Your task to perform on an android device: turn smart compose on in the gmail app Image 0: 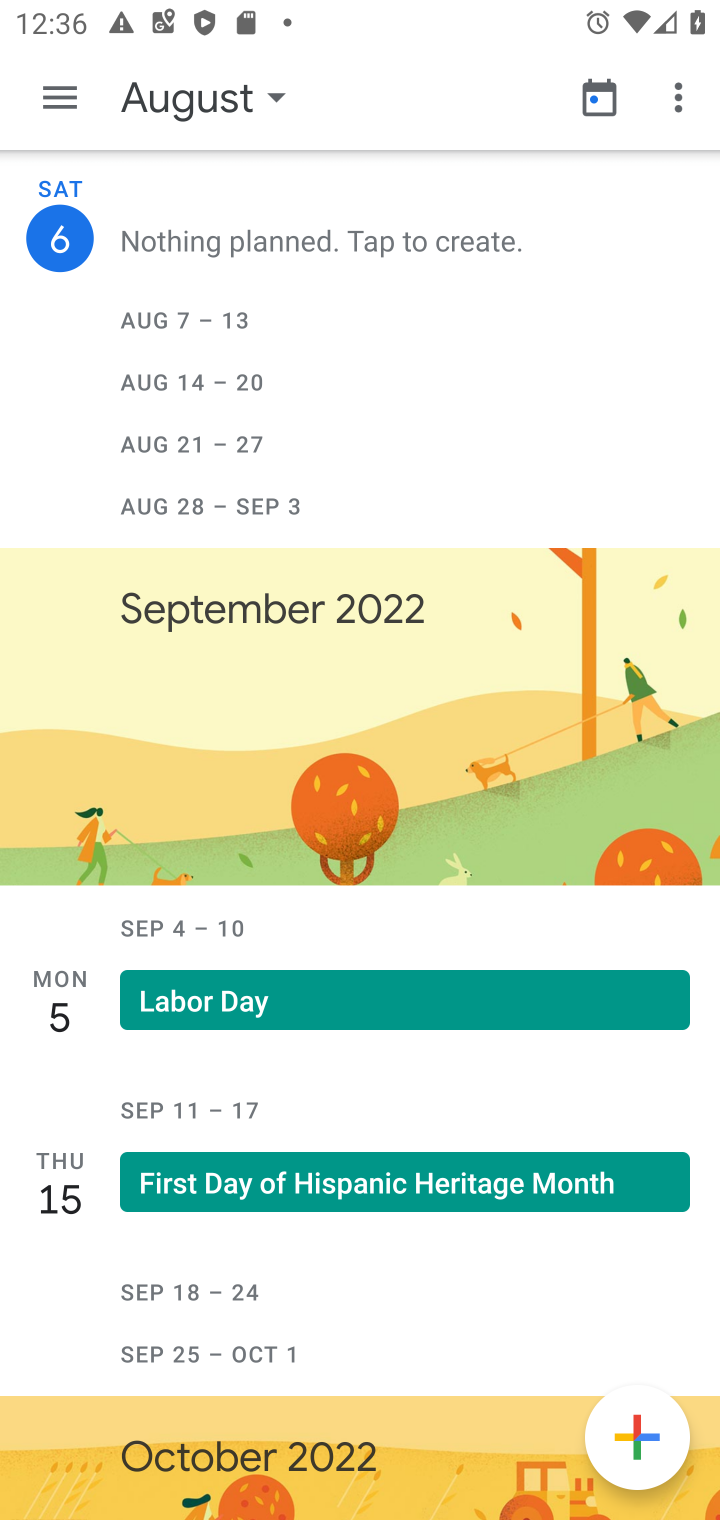
Step 0: press home button
Your task to perform on an android device: turn smart compose on in the gmail app Image 1: 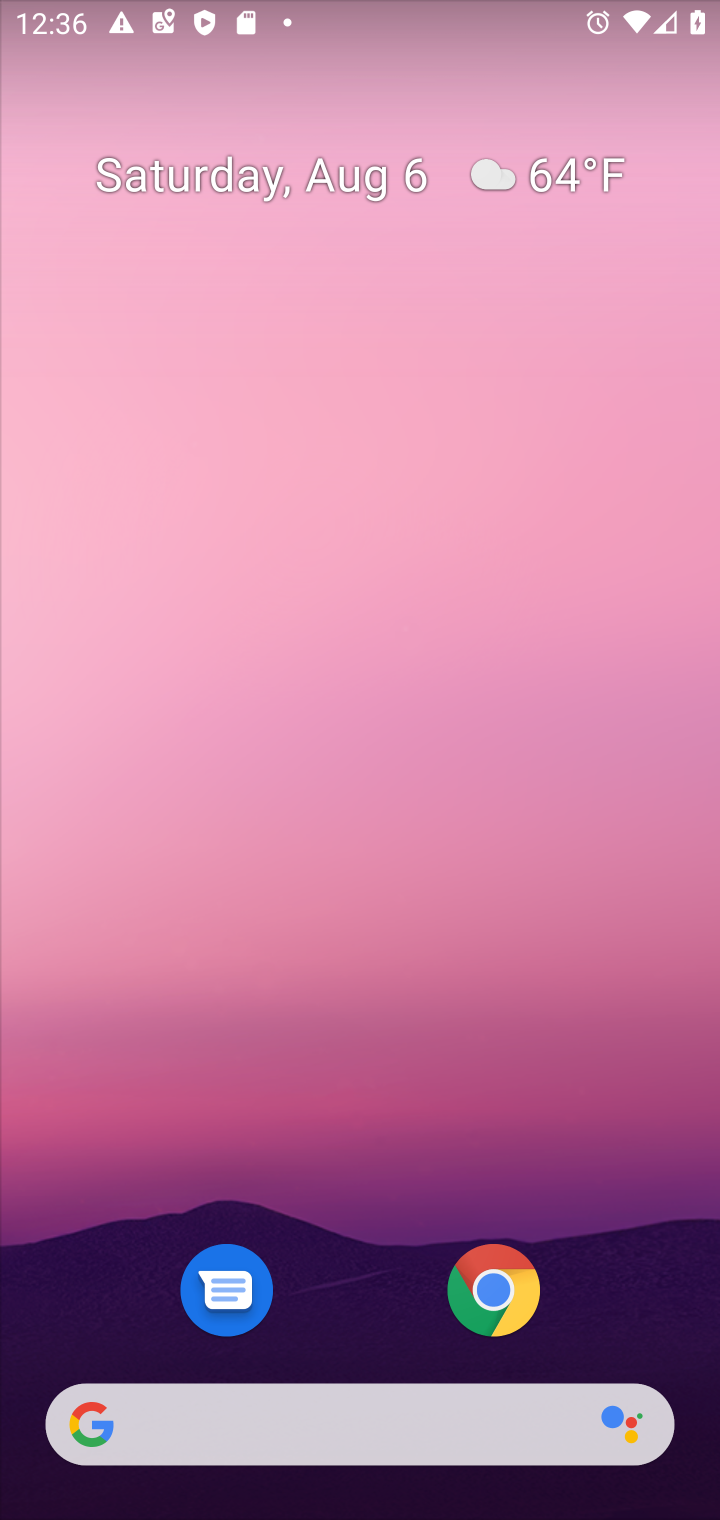
Step 1: drag from (373, 1205) to (365, 203)
Your task to perform on an android device: turn smart compose on in the gmail app Image 2: 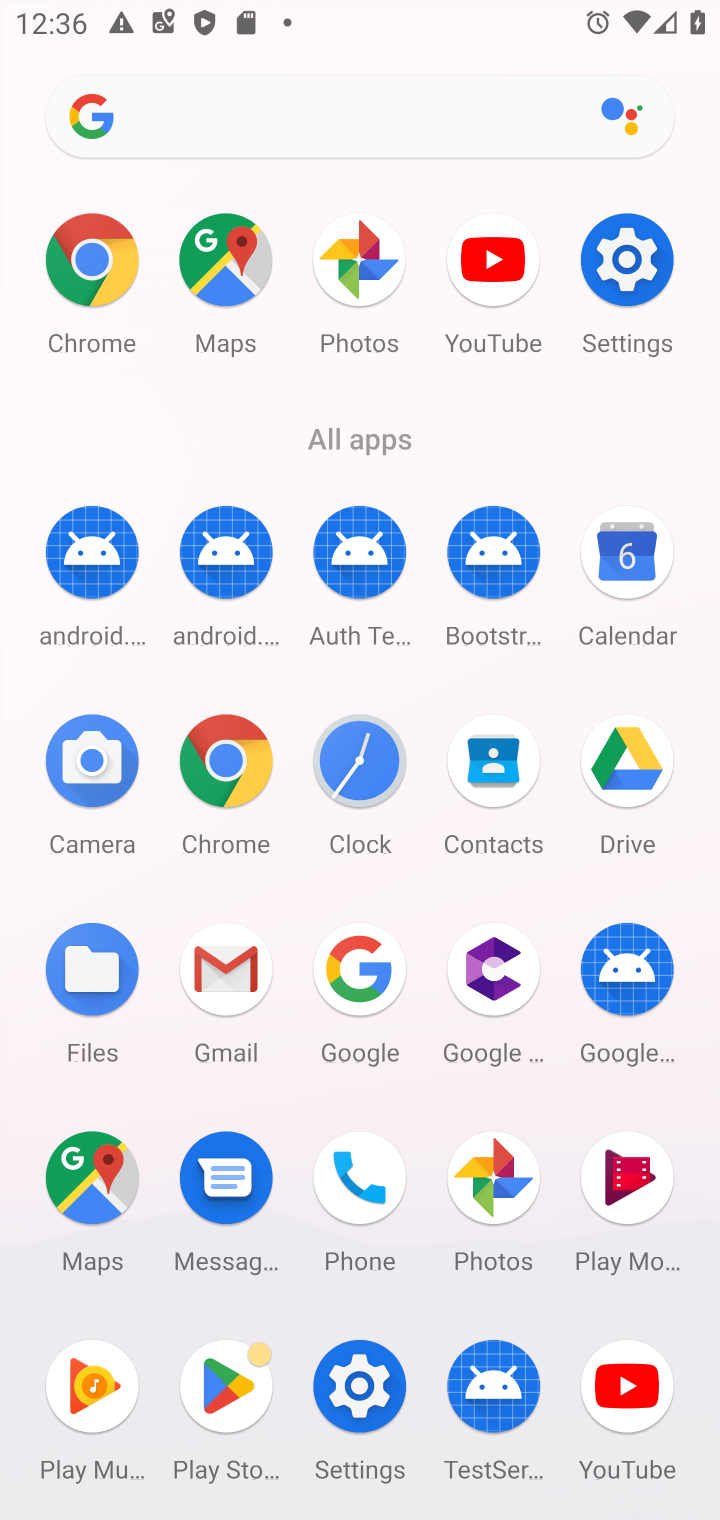
Step 2: click (221, 947)
Your task to perform on an android device: turn smart compose on in the gmail app Image 3: 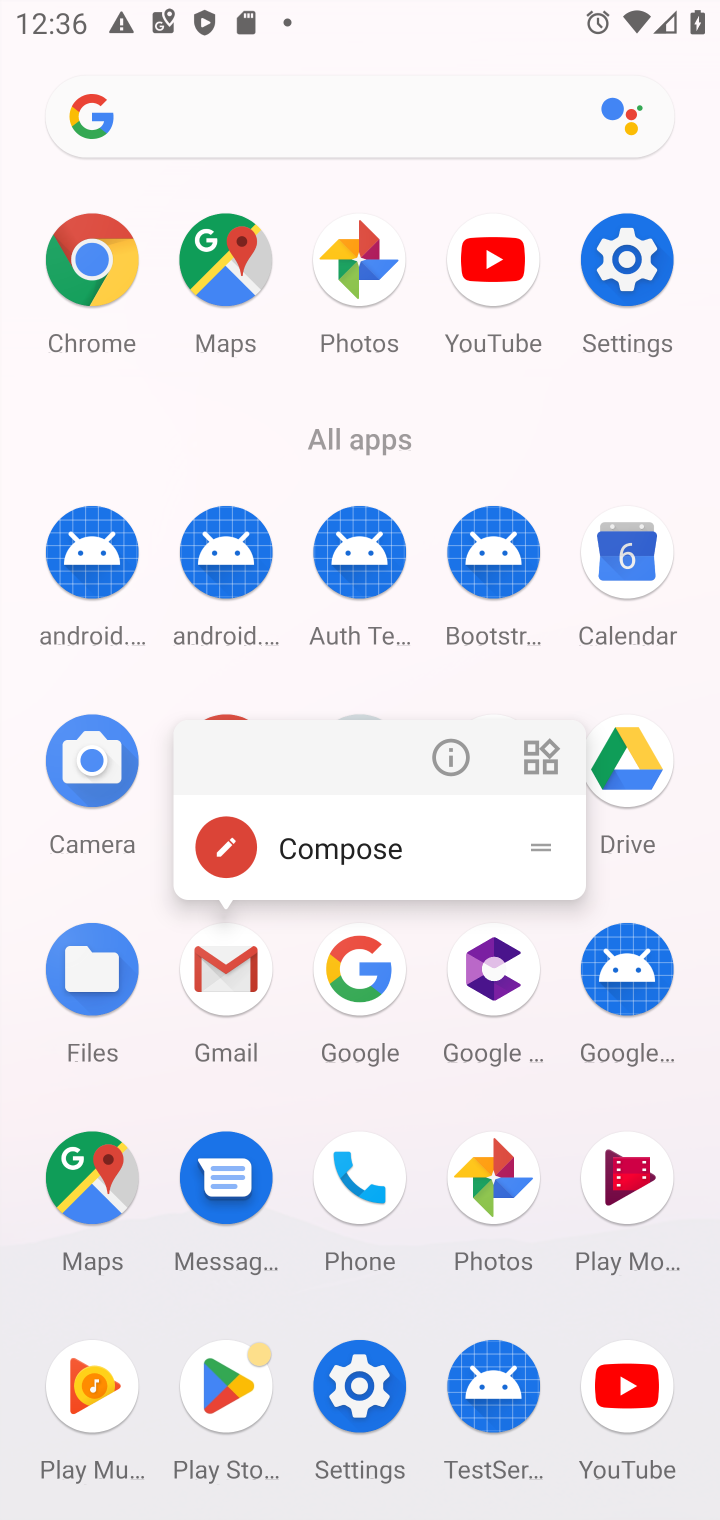
Step 3: click (213, 961)
Your task to perform on an android device: turn smart compose on in the gmail app Image 4: 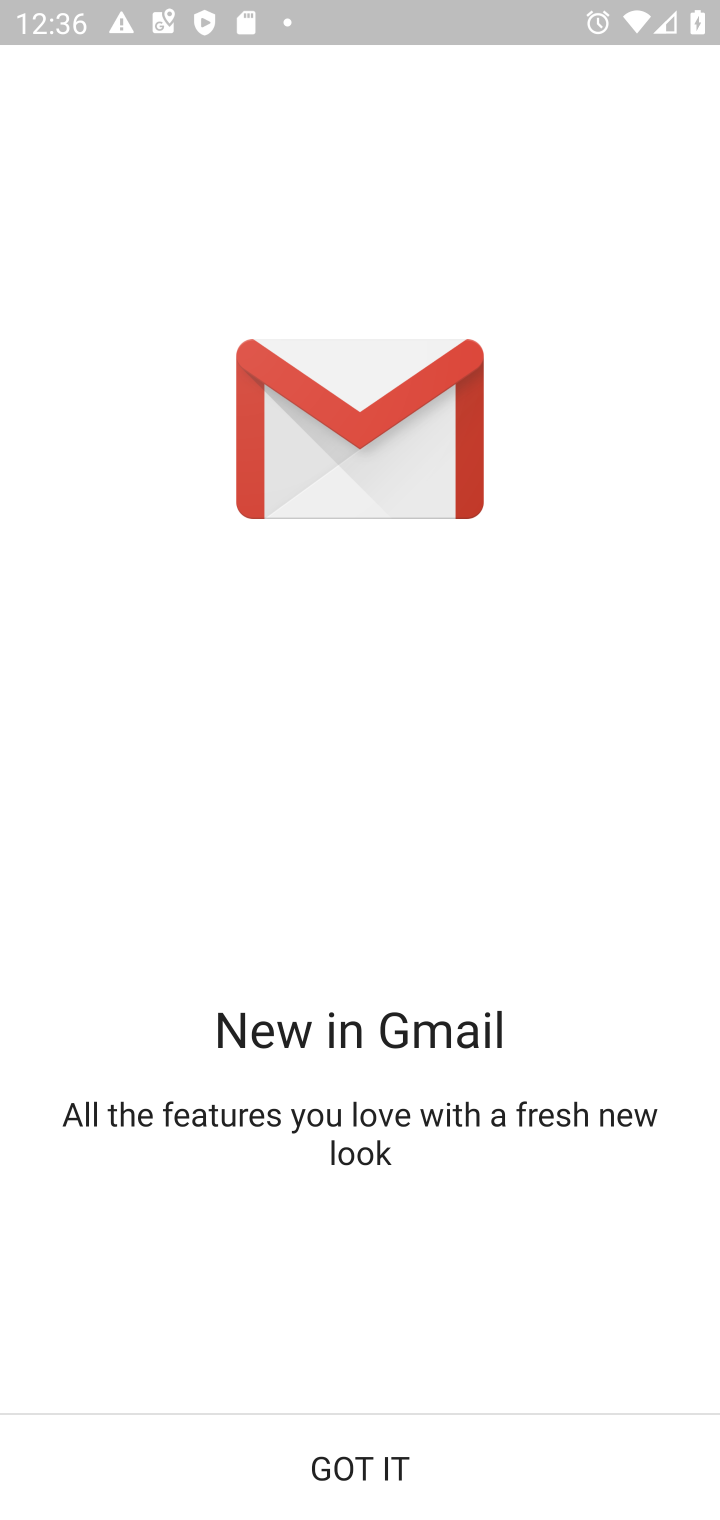
Step 4: click (343, 1456)
Your task to perform on an android device: turn smart compose on in the gmail app Image 5: 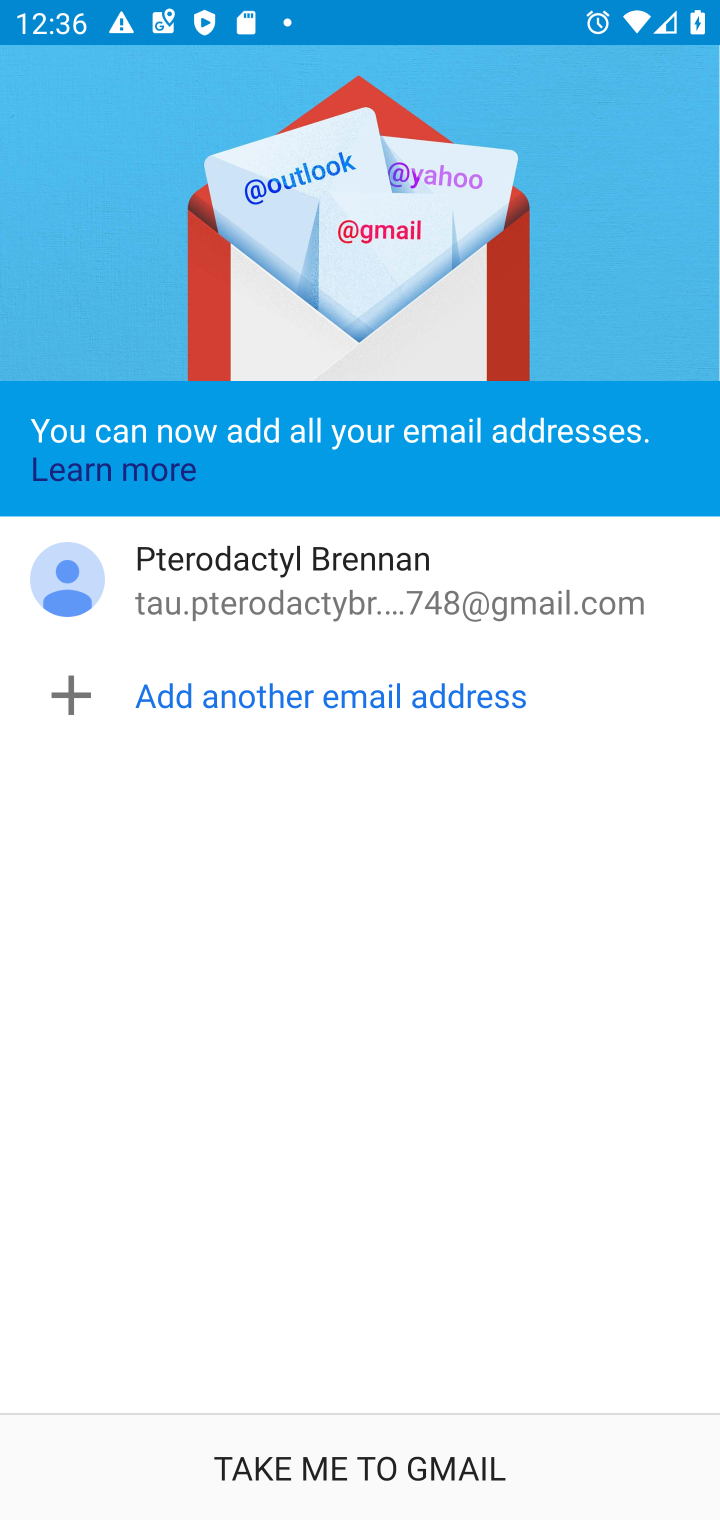
Step 5: click (347, 1483)
Your task to perform on an android device: turn smart compose on in the gmail app Image 6: 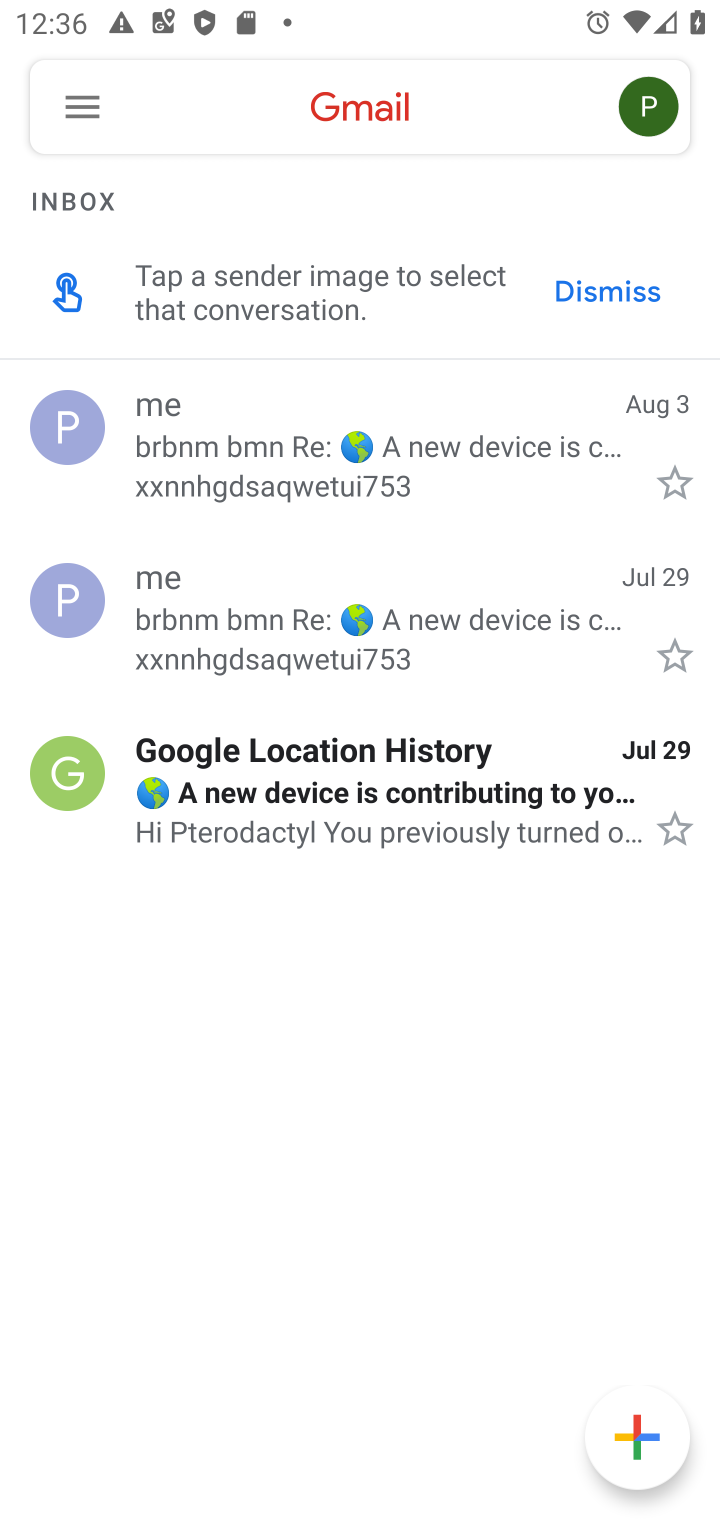
Step 6: click (89, 81)
Your task to perform on an android device: turn smart compose on in the gmail app Image 7: 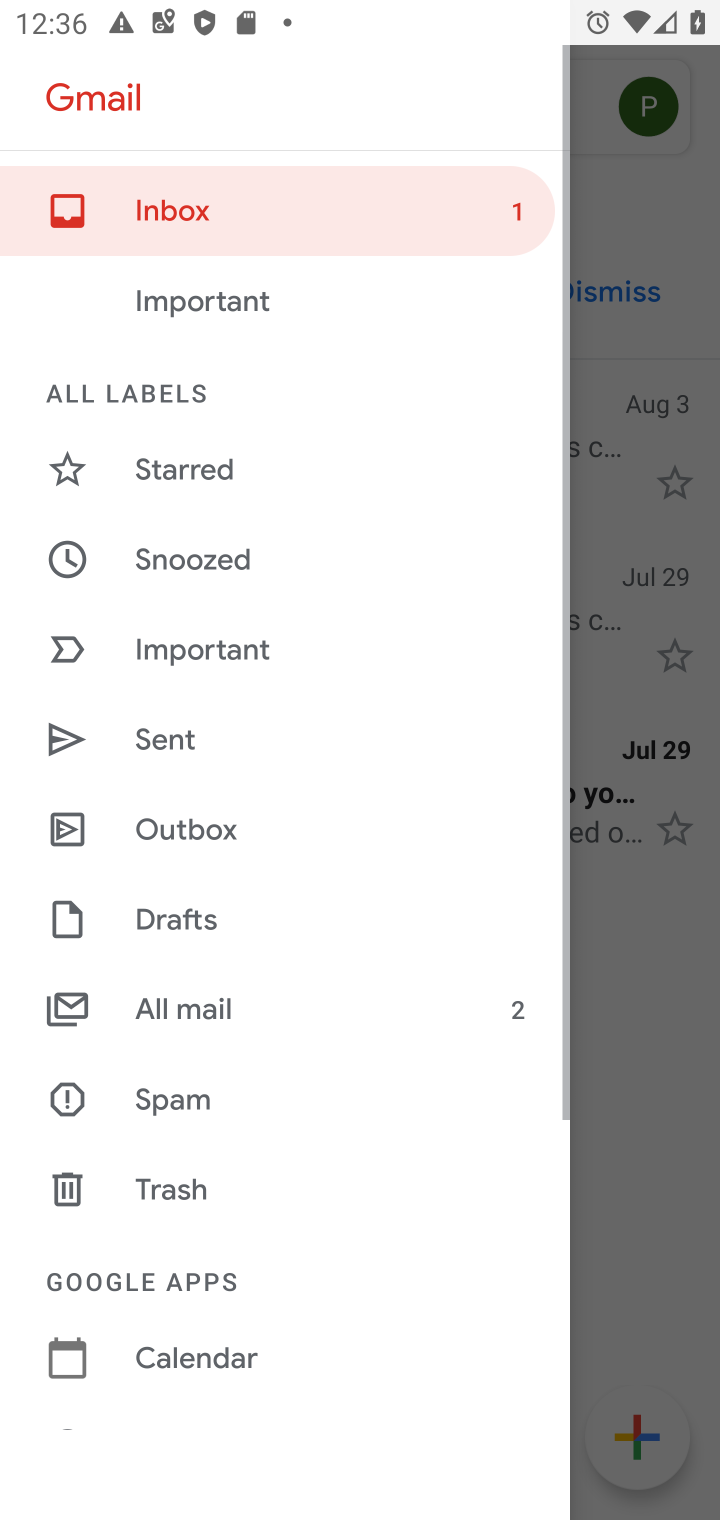
Step 7: drag from (207, 1324) to (224, 383)
Your task to perform on an android device: turn smart compose on in the gmail app Image 8: 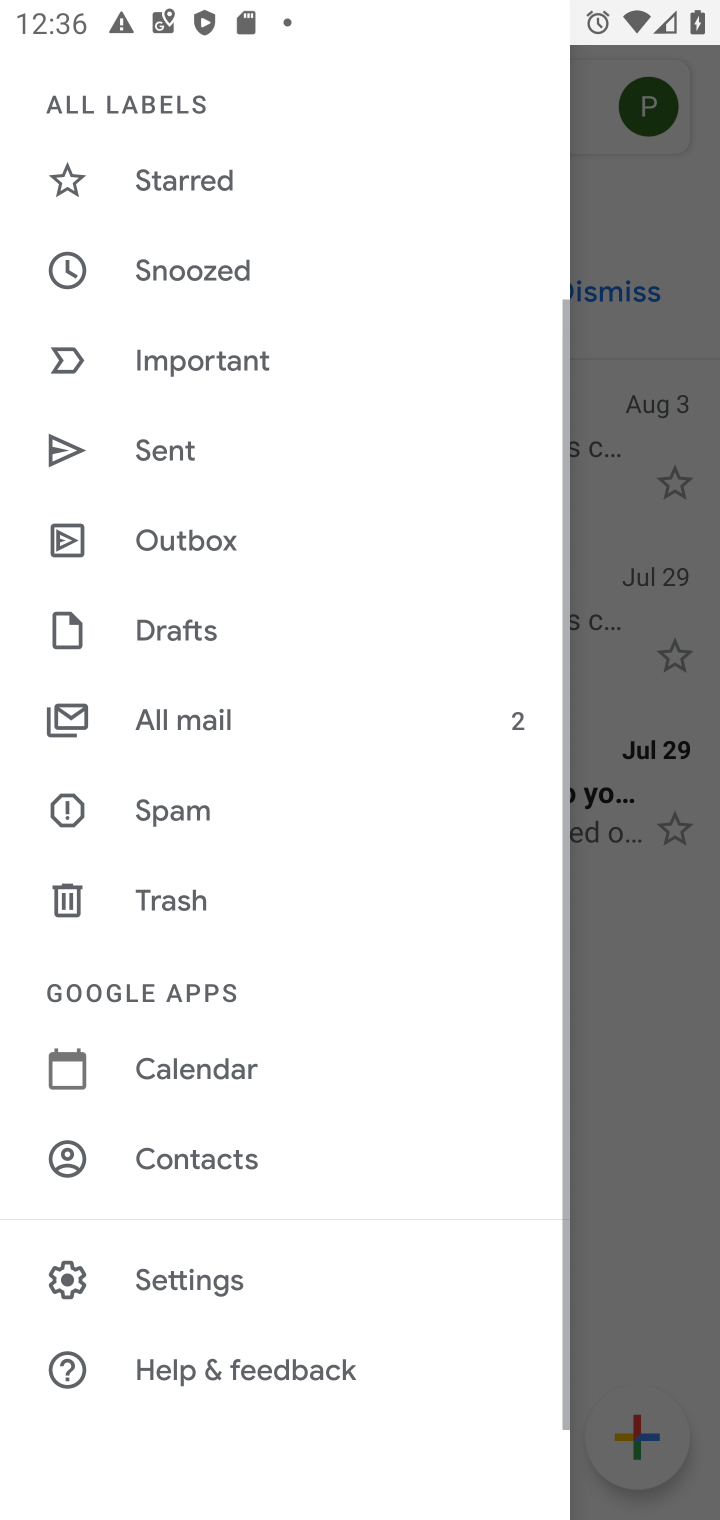
Step 8: click (276, 1277)
Your task to perform on an android device: turn smart compose on in the gmail app Image 9: 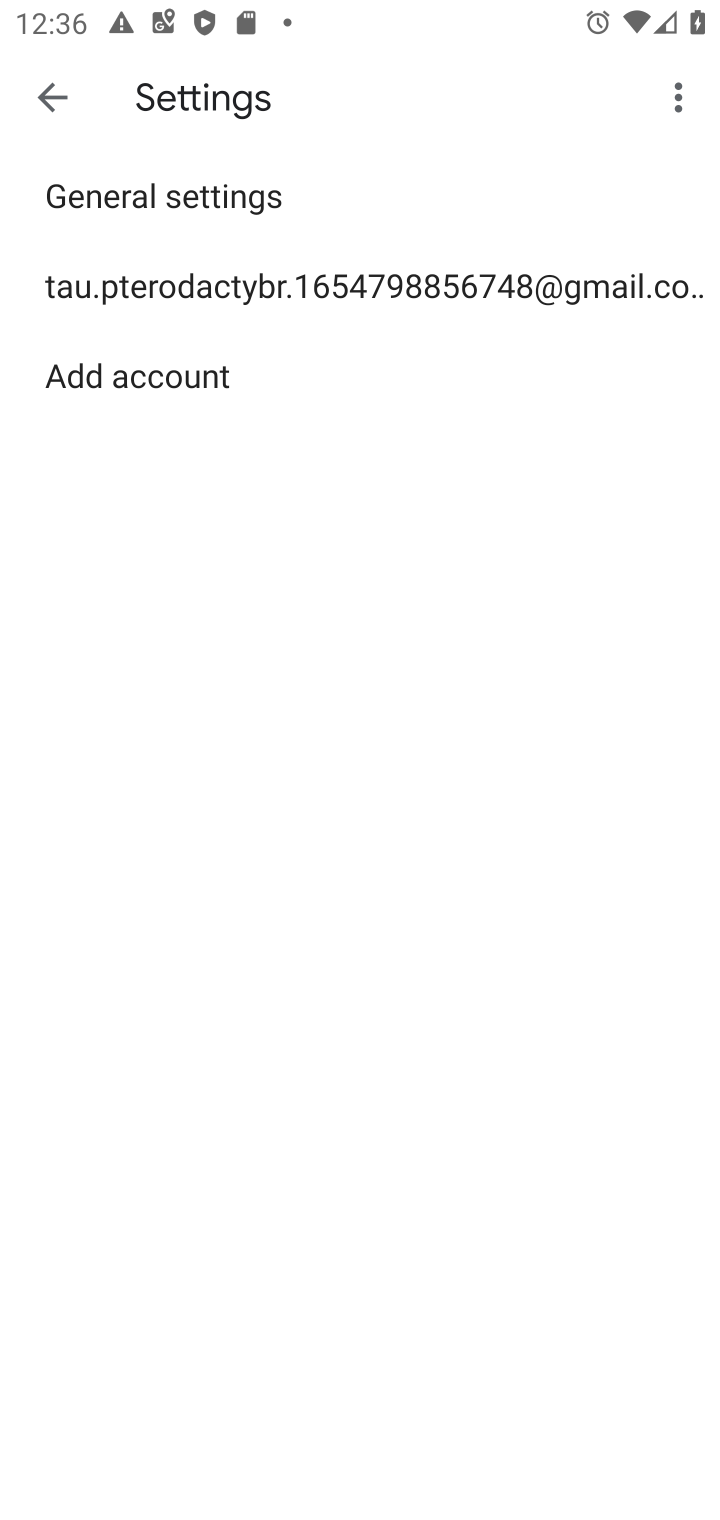
Step 9: click (293, 294)
Your task to perform on an android device: turn smart compose on in the gmail app Image 10: 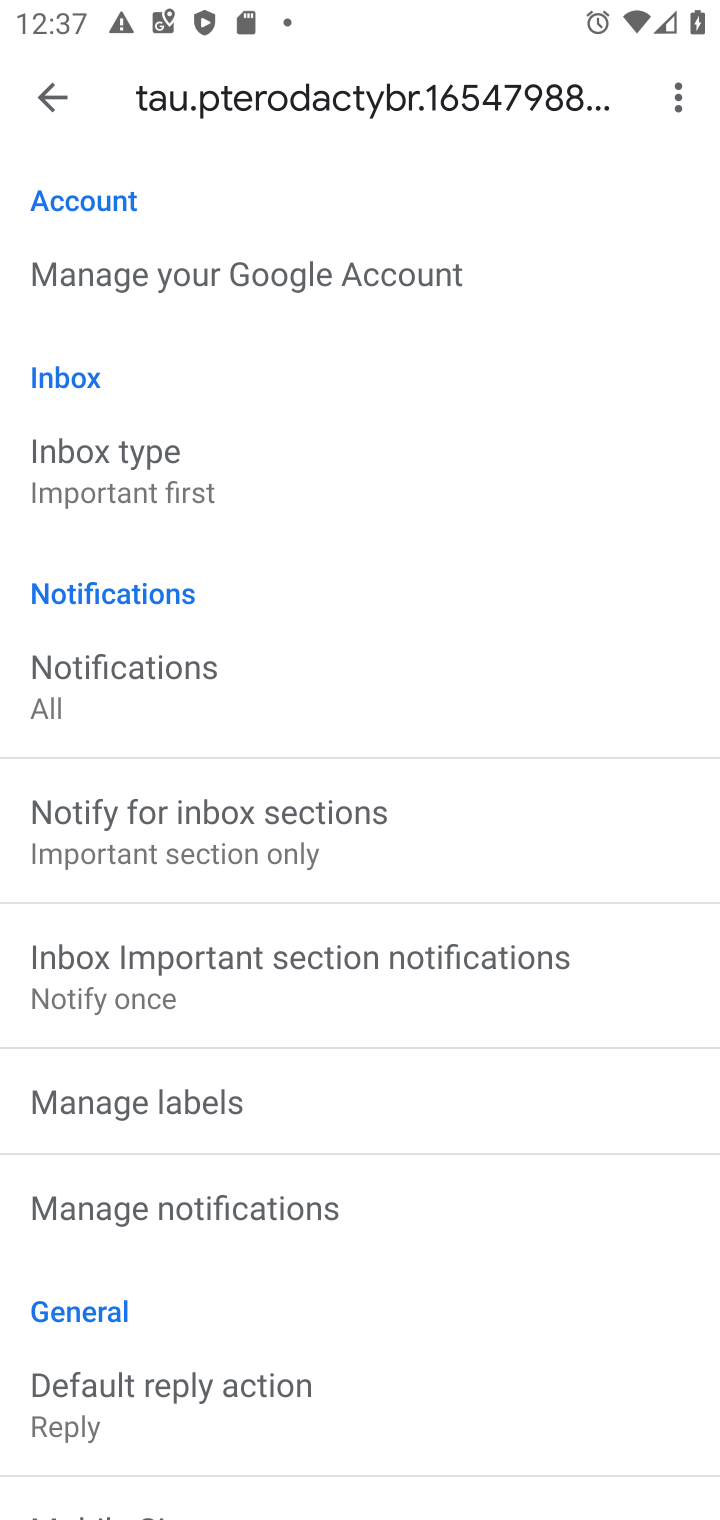
Step 10: task complete